Your task to perform on an android device: Search for usb-c to usb-b on costco, select the first entry, and add it to the cart. Image 0: 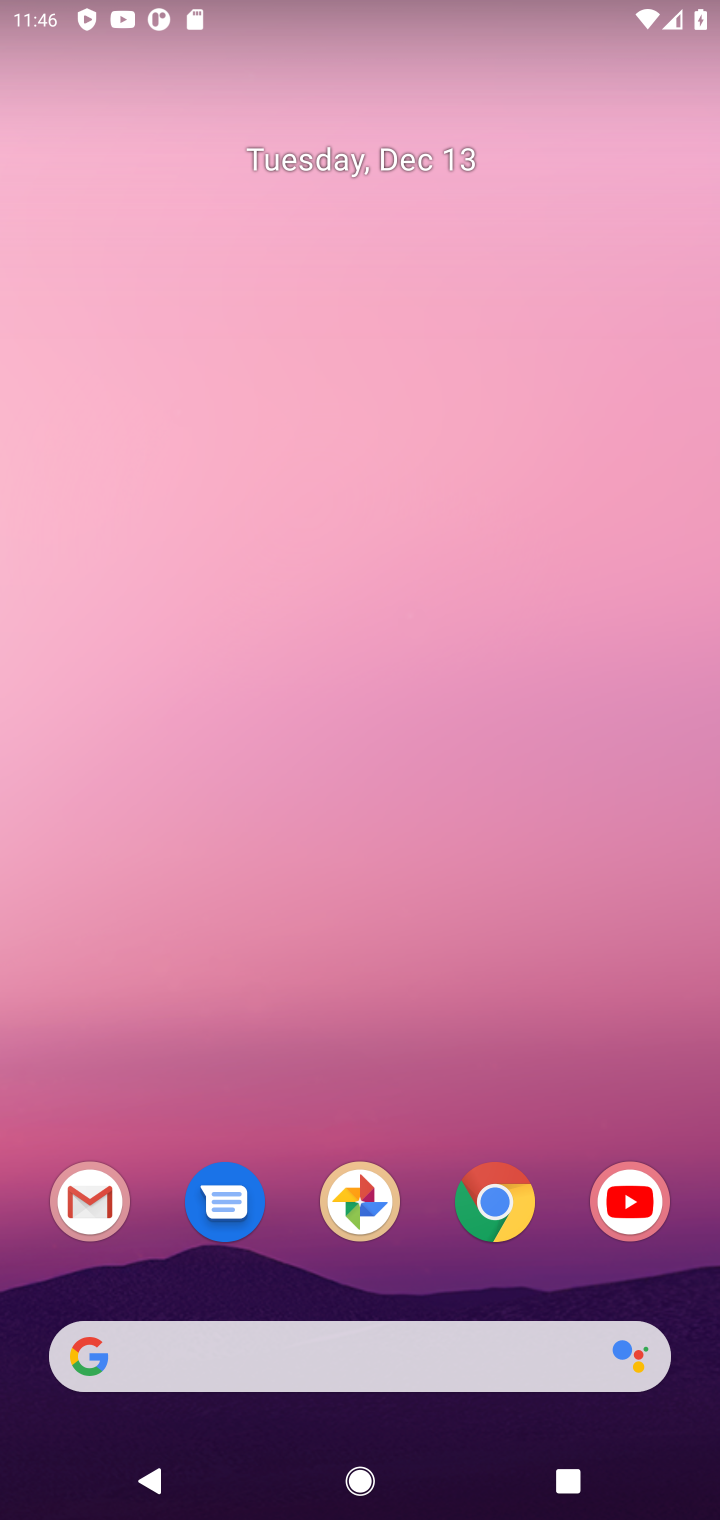
Step 0: click (489, 1202)
Your task to perform on an android device: Search for usb-c to usb-b on costco, select the first entry, and add it to the cart. Image 1: 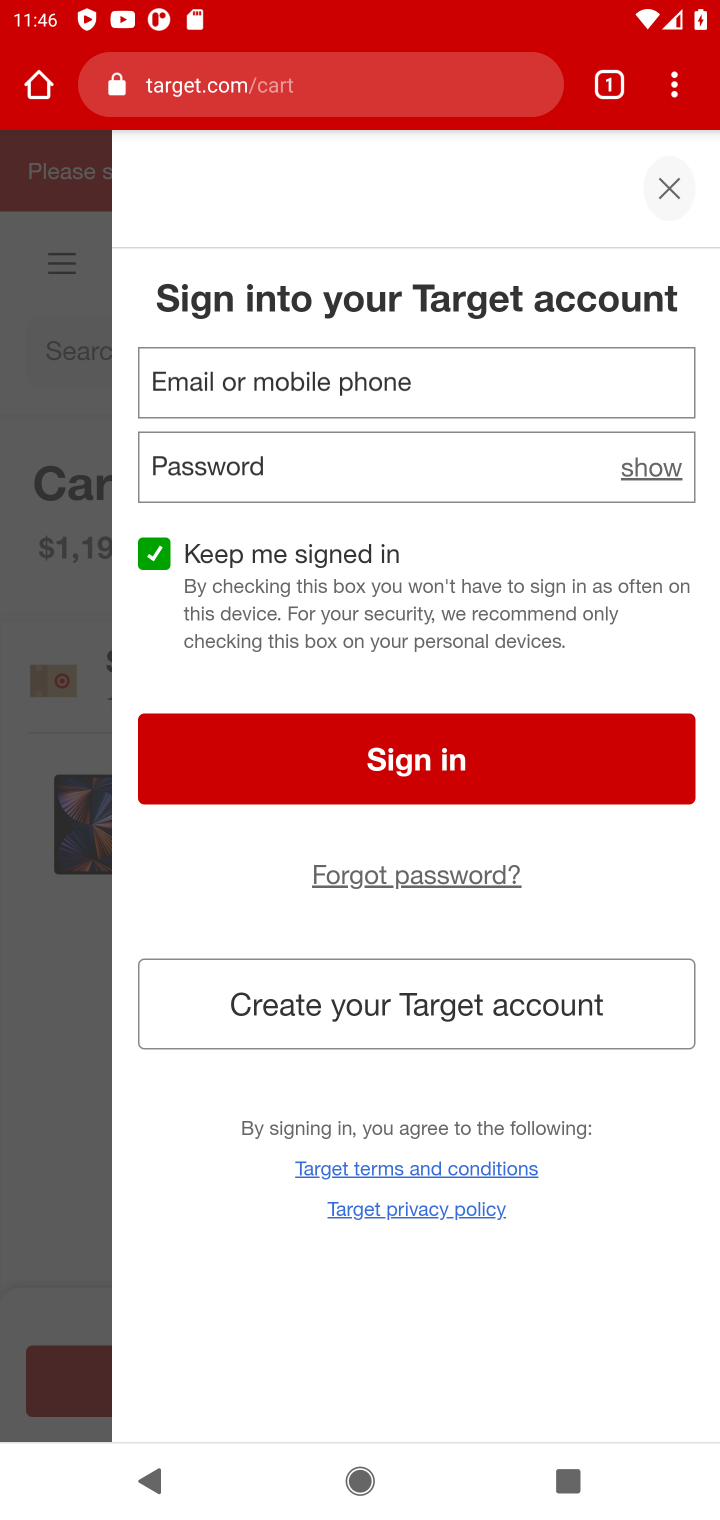
Step 1: click (317, 72)
Your task to perform on an android device: Search for usb-c to usb-b on costco, select the first entry, and add it to the cart. Image 2: 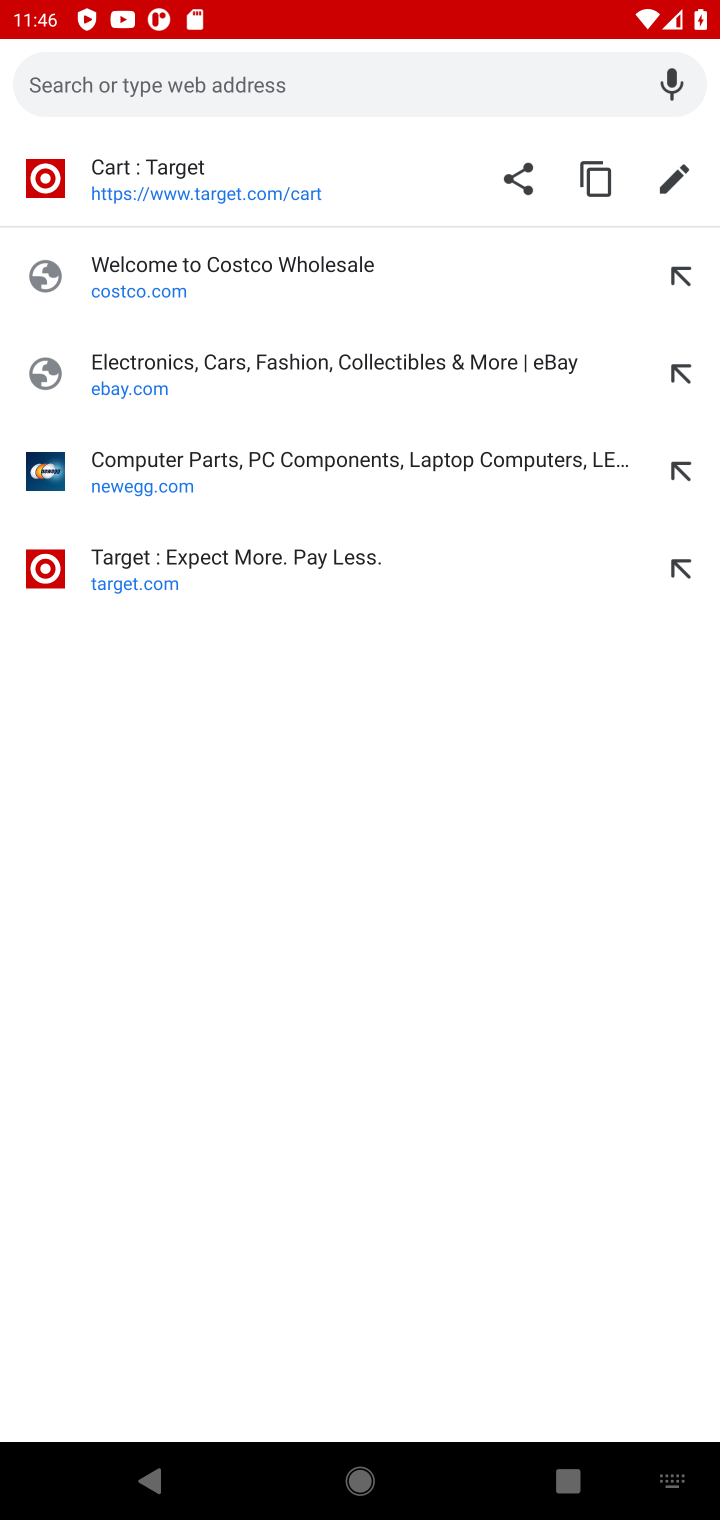
Step 2: click (247, 268)
Your task to perform on an android device: Search for usb-c to usb-b on costco, select the first entry, and add it to the cart. Image 3: 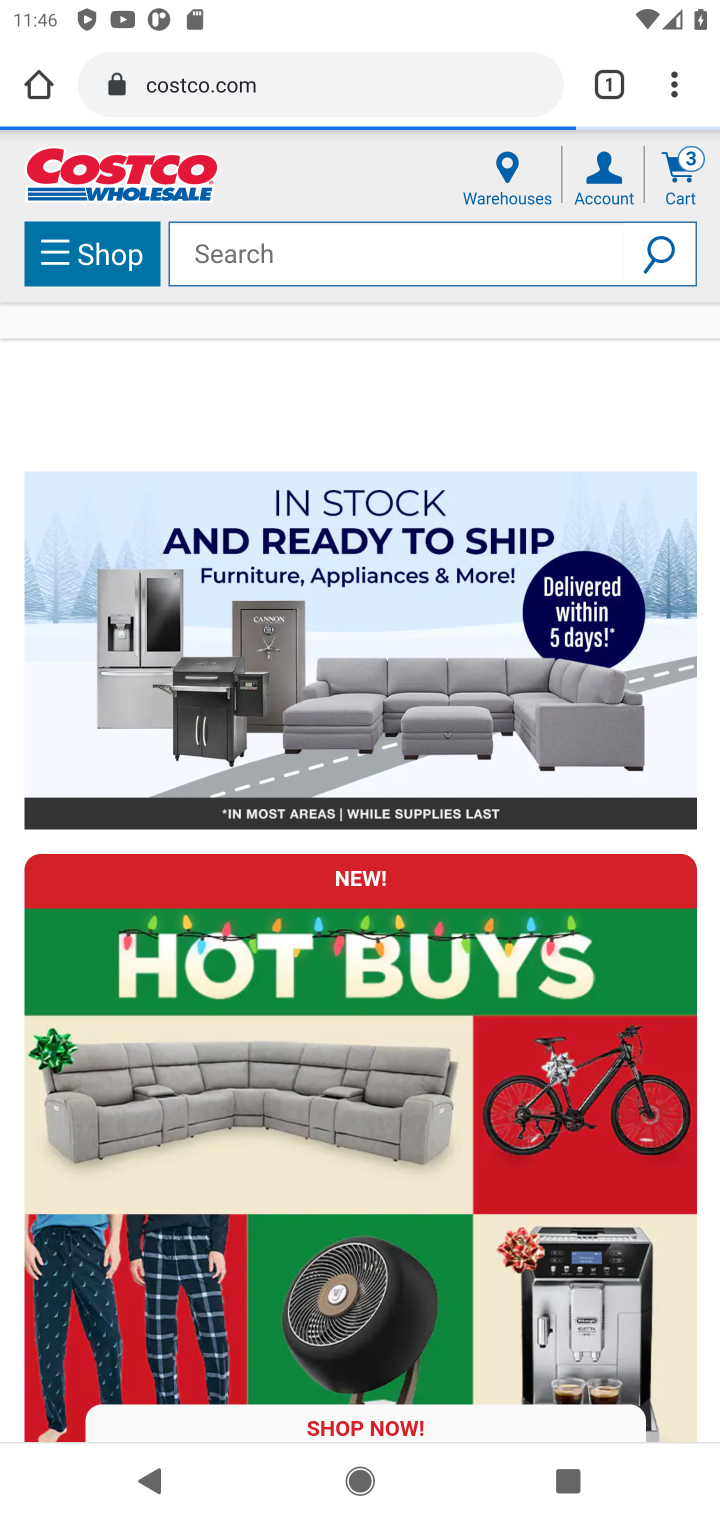
Step 3: click (490, 244)
Your task to perform on an android device: Search for usb-c to usb-b on costco, select the first entry, and add it to the cart. Image 4: 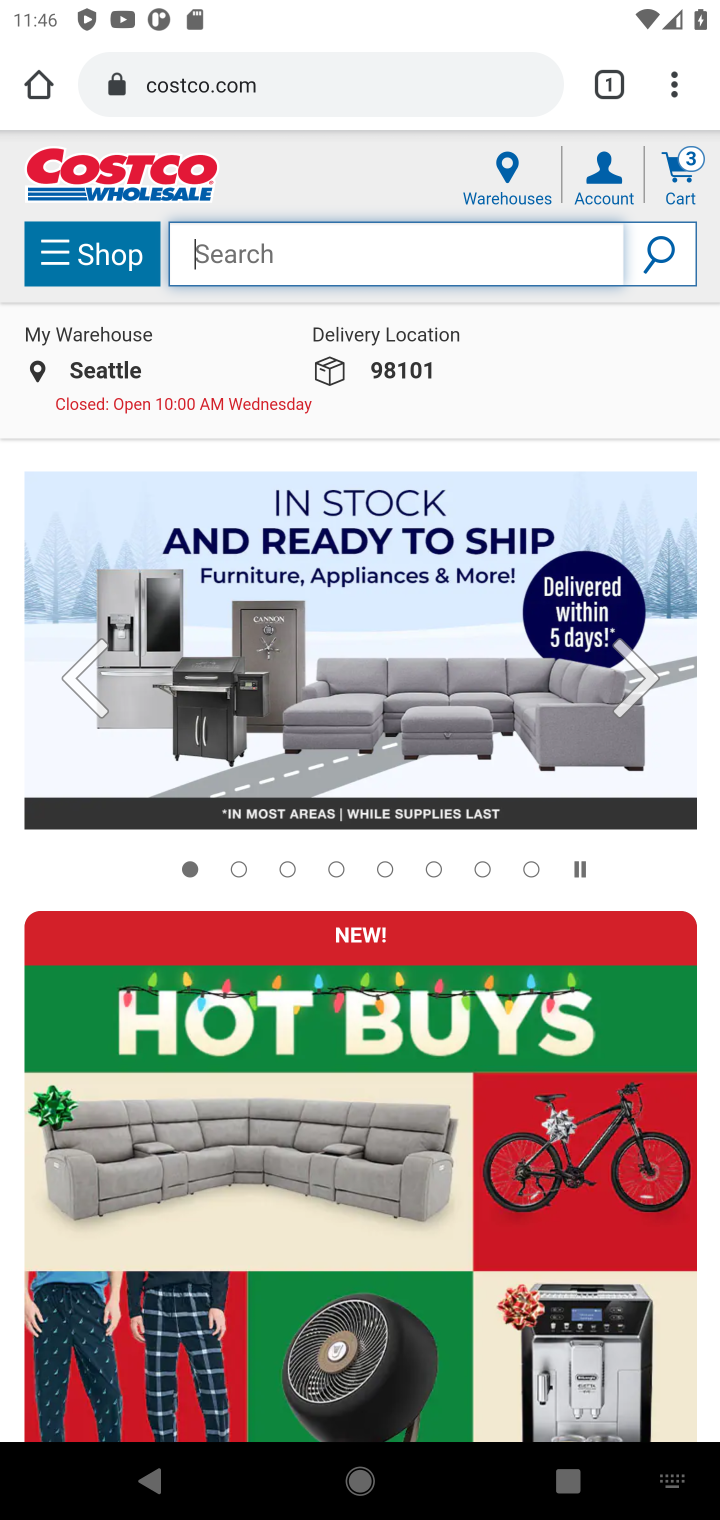
Step 4: click (351, 253)
Your task to perform on an android device: Search for usb-c to usb-b on costco, select the first entry, and add it to the cart. Image 5: 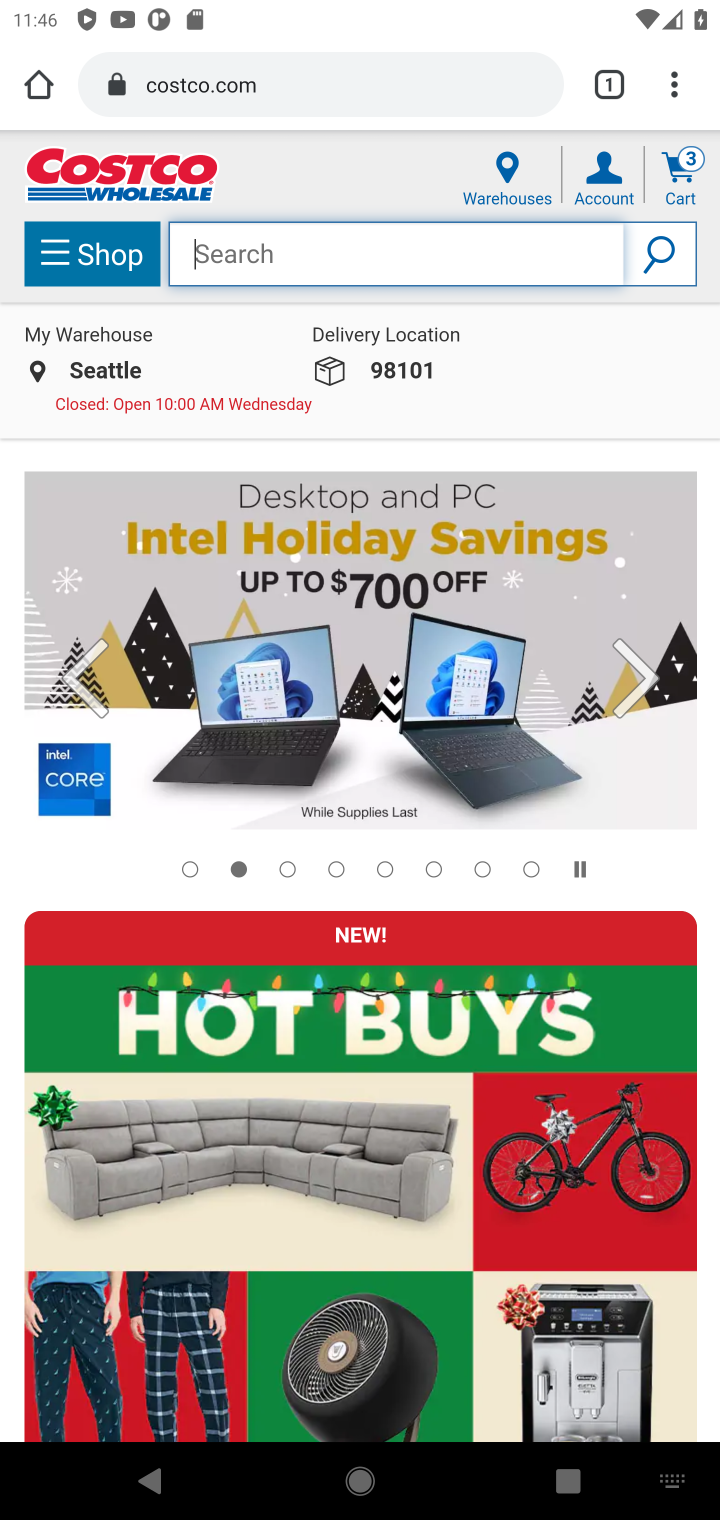
Step 5: type "usb-c to usb-b"
Your task to perform on an android device: Search for usb-c to usb-b on costco, select the first entry, and add it to the cart. Image 6: 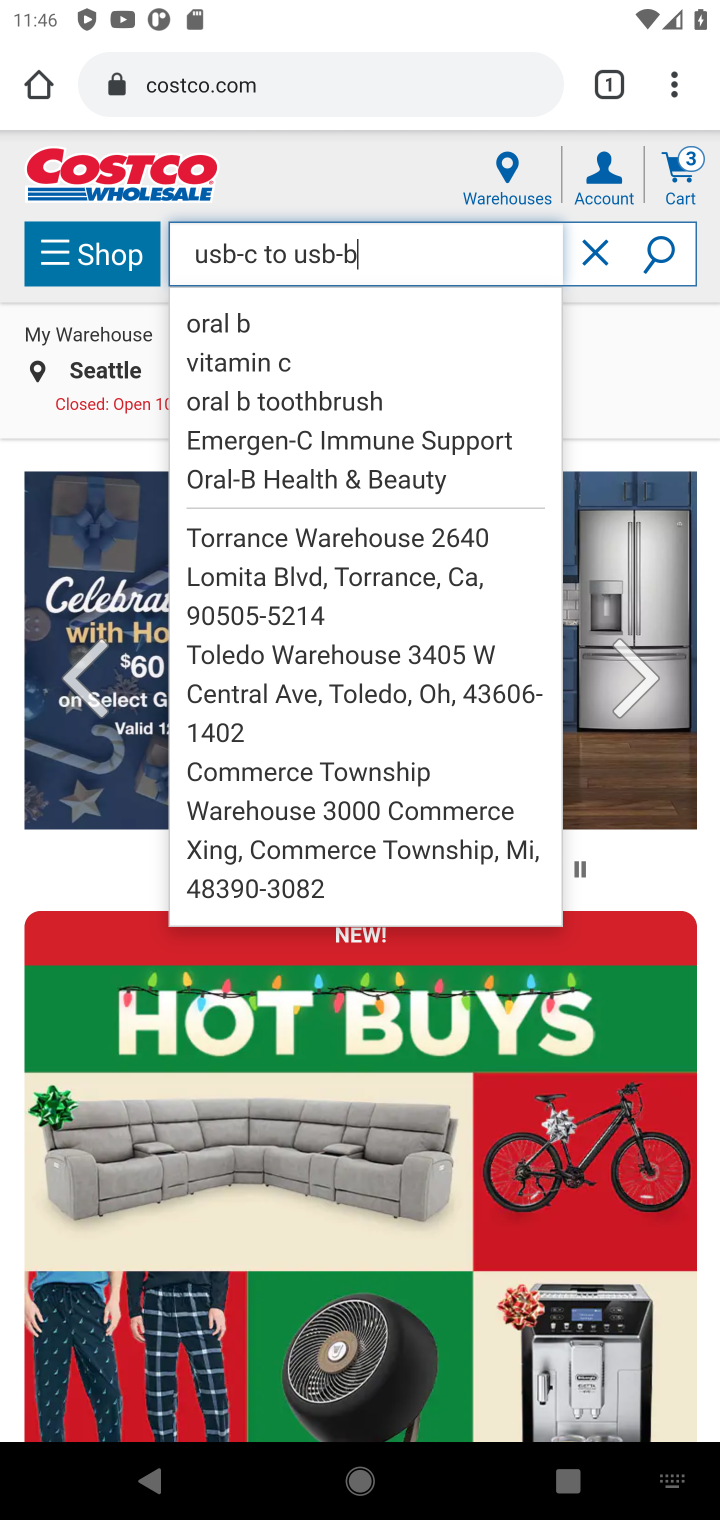
Step 6: click (483, 251)
Your task to perform on an android device: Search for usb-c to usb-b on costco, select the first entry, and add it to the cart. Image 7: 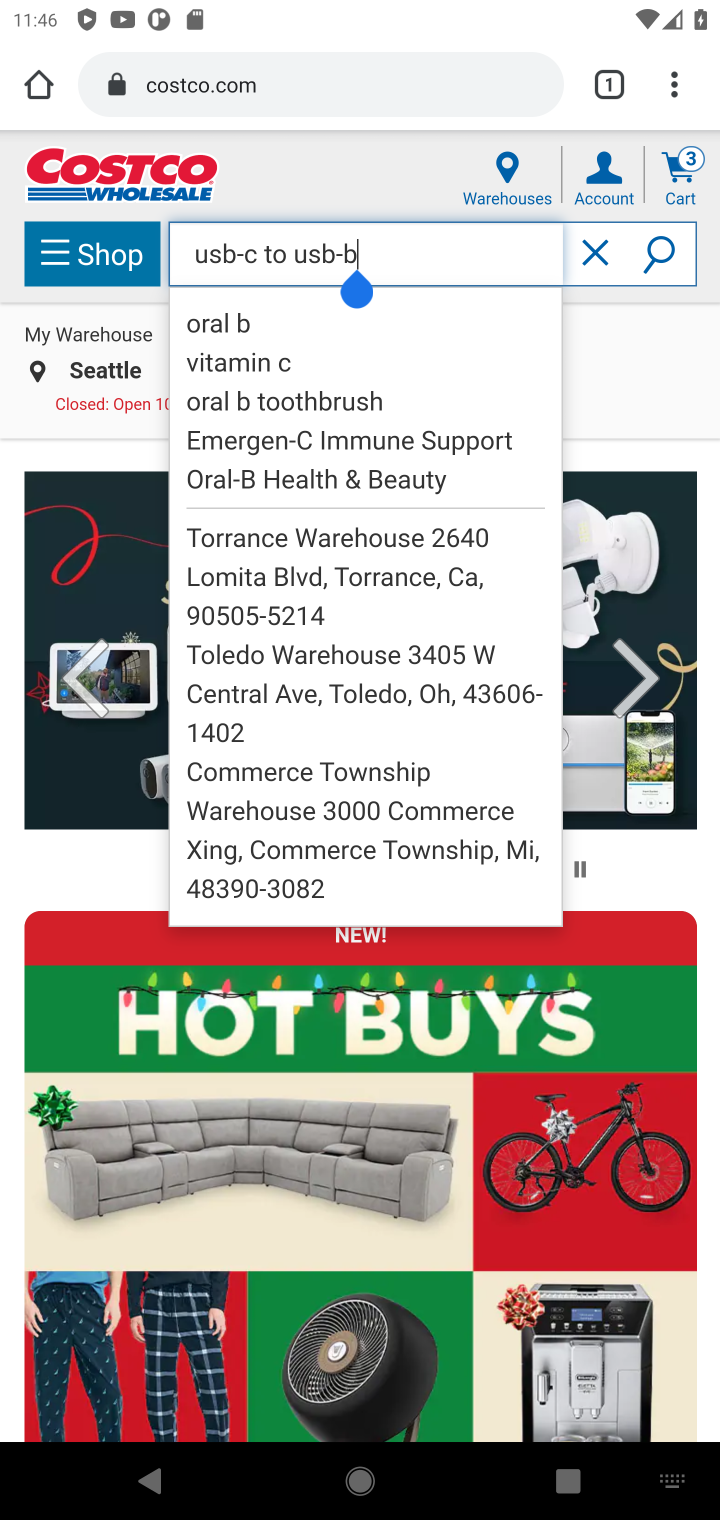
Step 7: click (644, 257)
Your task to perform on an android device: Search for usb-c to usb-b on costco, select the first entry, and add it to the cart. Image 8: 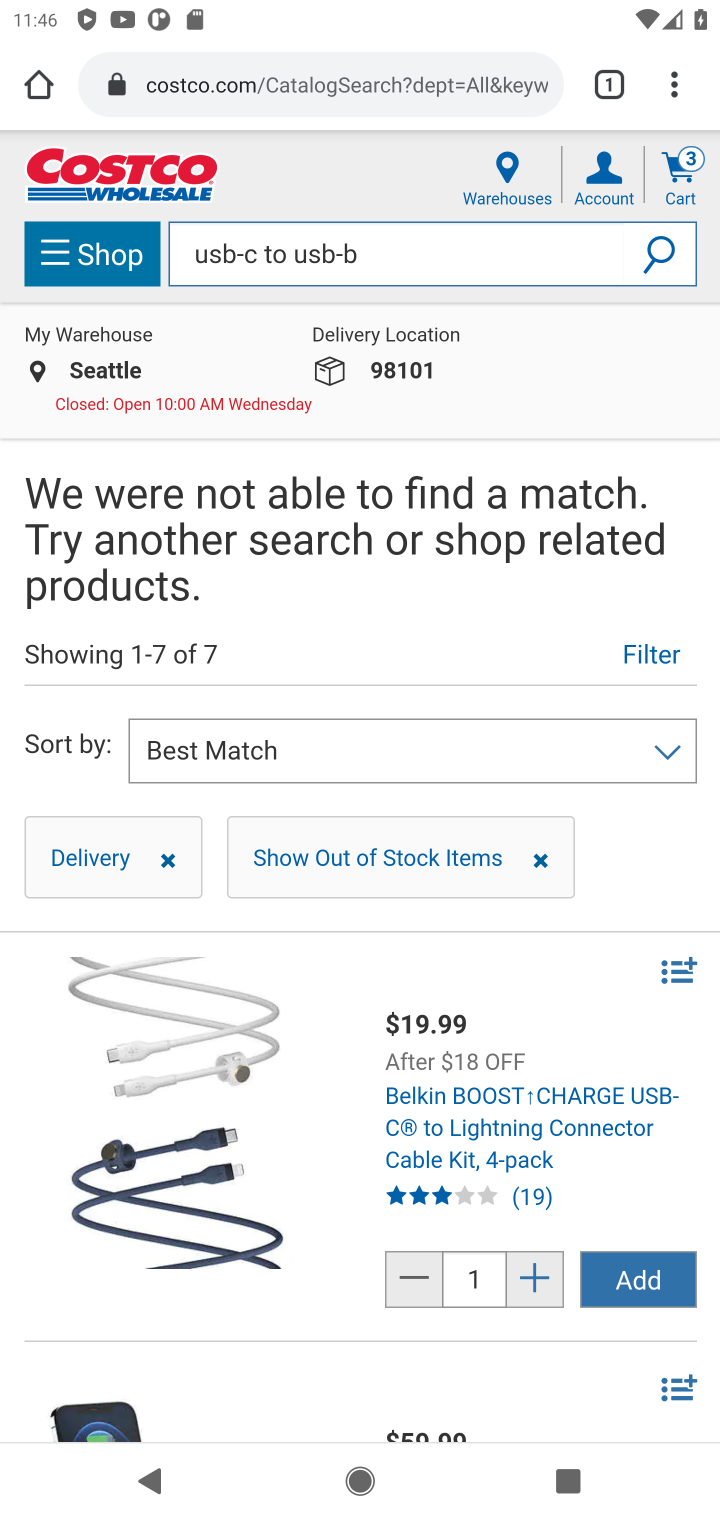
Step 8: click (631, 1278)
Your task to perform on an android device: Search for usb-c to usb-b on costco, select the first entry, and add it to the cart. Image 9: 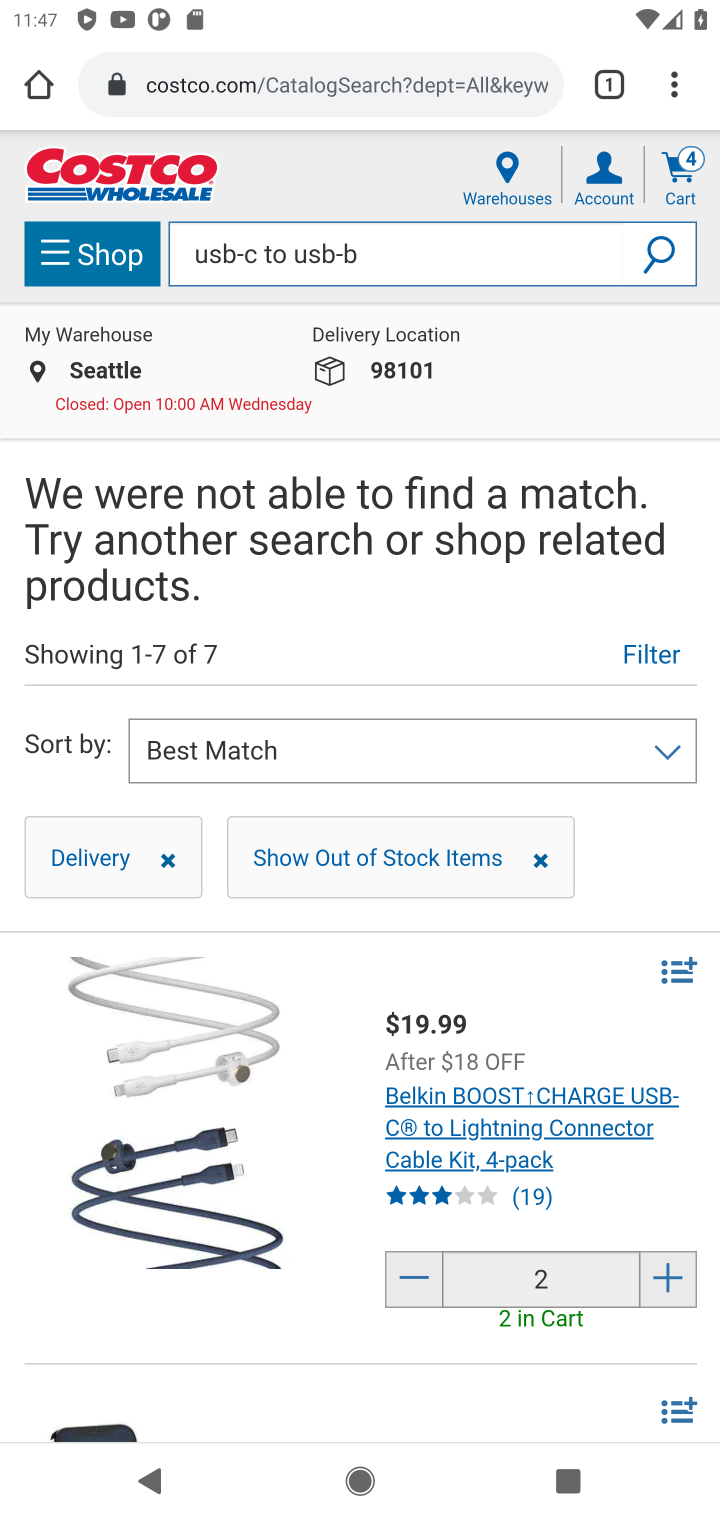
Step 9: task complete